Your task to perform on an android device: open chrome privacy settings Image 0: 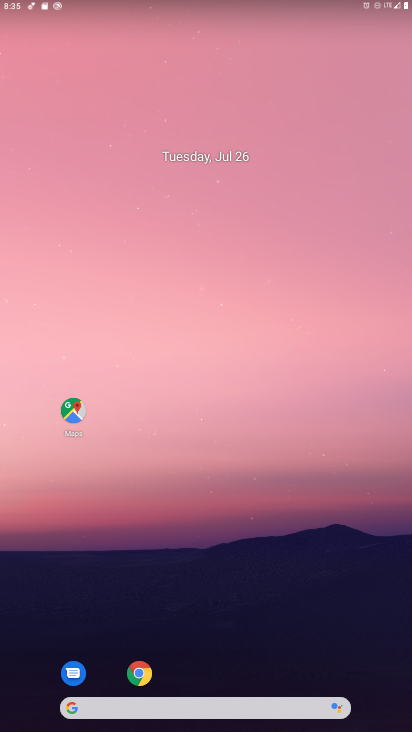
Step 0: drag from (362, 655) to (199, 29)
Your task to perform on an android device: open chrome privacy settings Image 1: 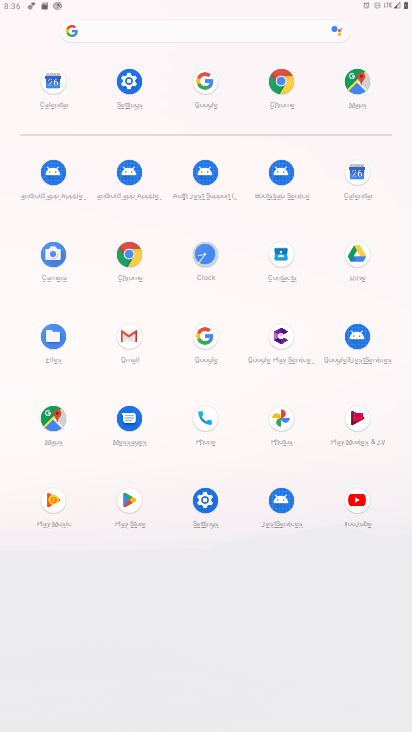
Step 1: click (121, 252)
Your task to perform on an android device: open chrome privacy settings Image 2: 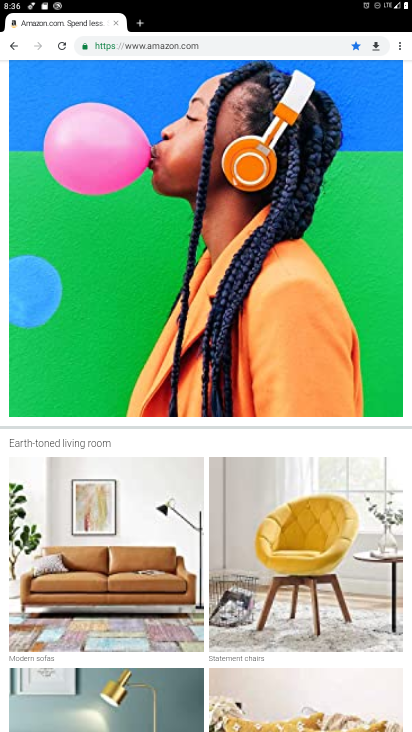
Step 2: click (396, 42)
Your task to perform on an android device: open chrome privacy settings Image 3: 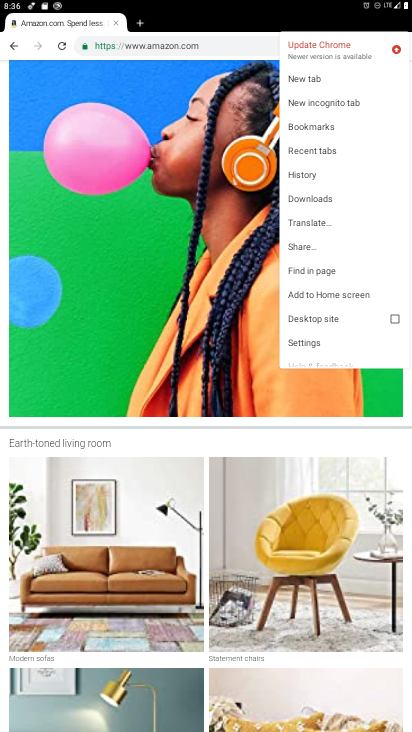
Step 3: click (307, 339)
Your task to perform on an android device: open chrome privacy settings Image 4: 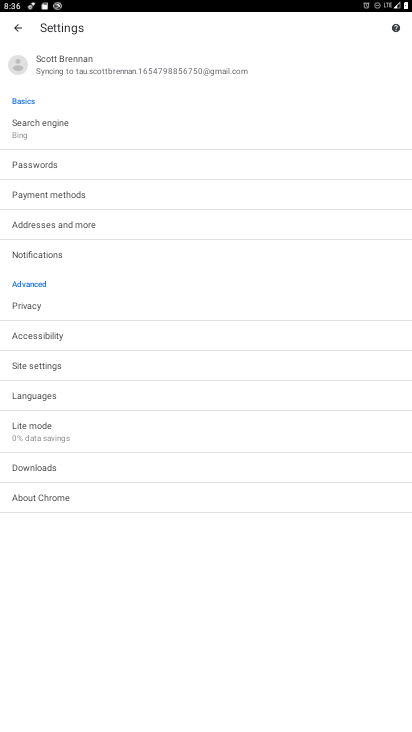
Step 4: click (33, 317)
Your task to perform on an android device: open chrome privacy settings Image 5: 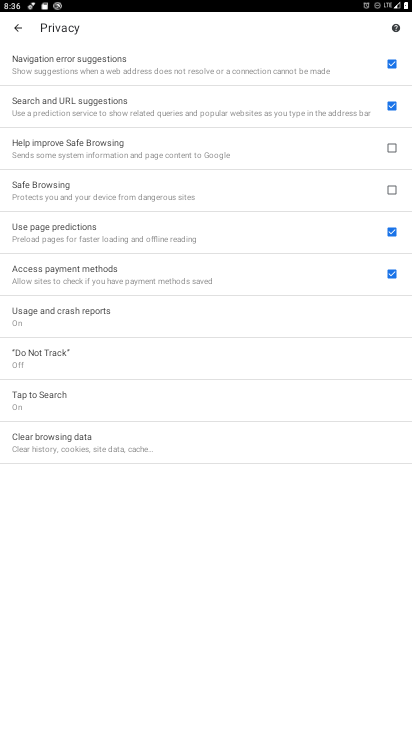
Step 5: task complete